Your task to perform on an android device: turn off notifications settings in the gmail app Image 0: 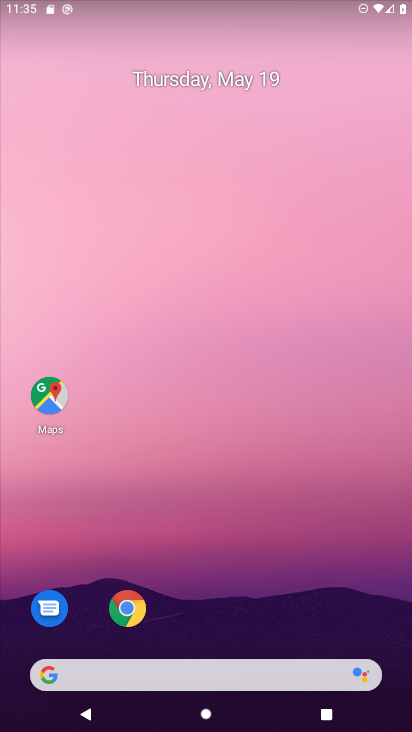
Step 0: drag from (251, 631) to (258, 57)
Your task to perform on an android device: turn off notifications settings in the gmail app Image 1: 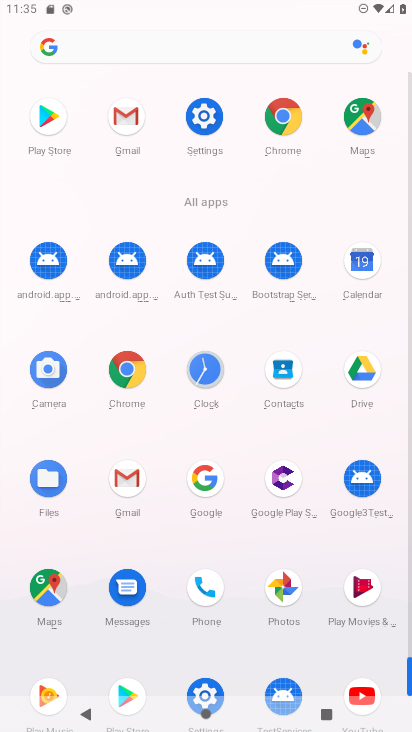
Step 1: click (125, 114)
Your task to perform on an android device: turn off notifications settings in the gmail app Image 2: 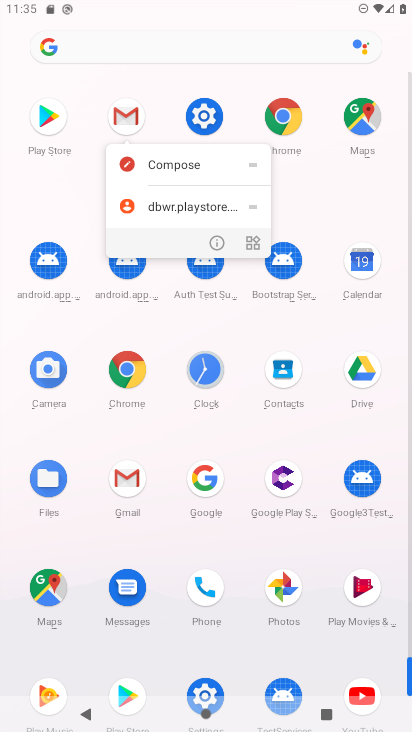
Step 2: click (211, 253)
Your task to perform on an android device: turn off notifications settings in the gmail app Image 3: 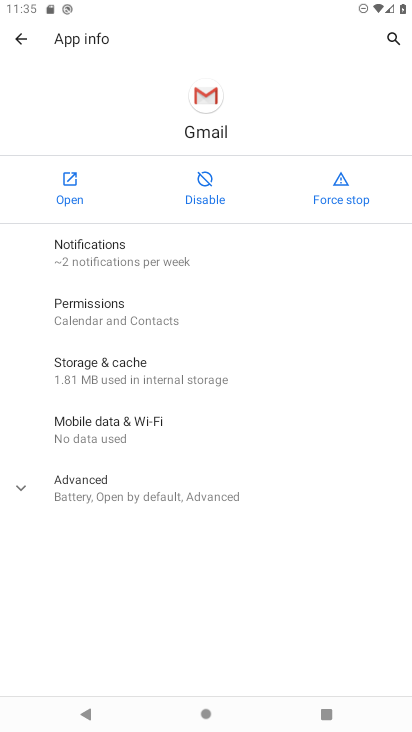
Step 3: click (208, 256)
Your task to perform on an android device: turn off notifications settings in the gmail app Image 4: 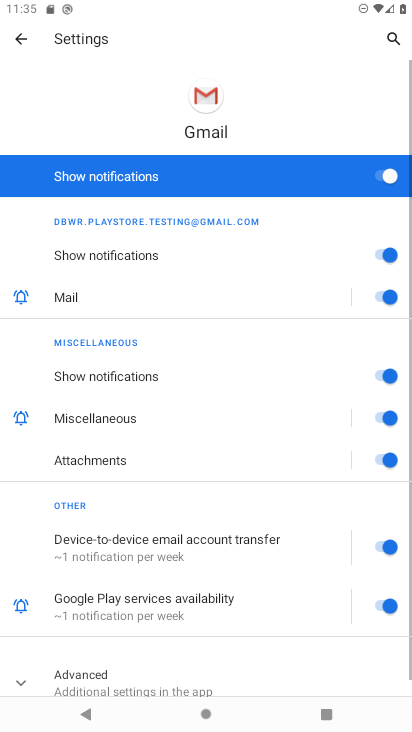
Step 4: click (370, 181)
Your task to perform on an android device: turn off notifications settings in the gmail app Image 5: 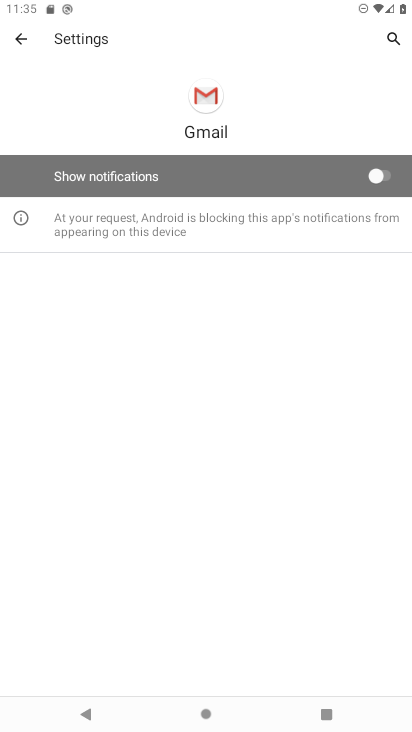
Step 5: task complete